Your task to perform on an android device: Clear the cart on newegg.com. Add asus zenbook to the cart on newegg.com, then select checkout. Image 0: 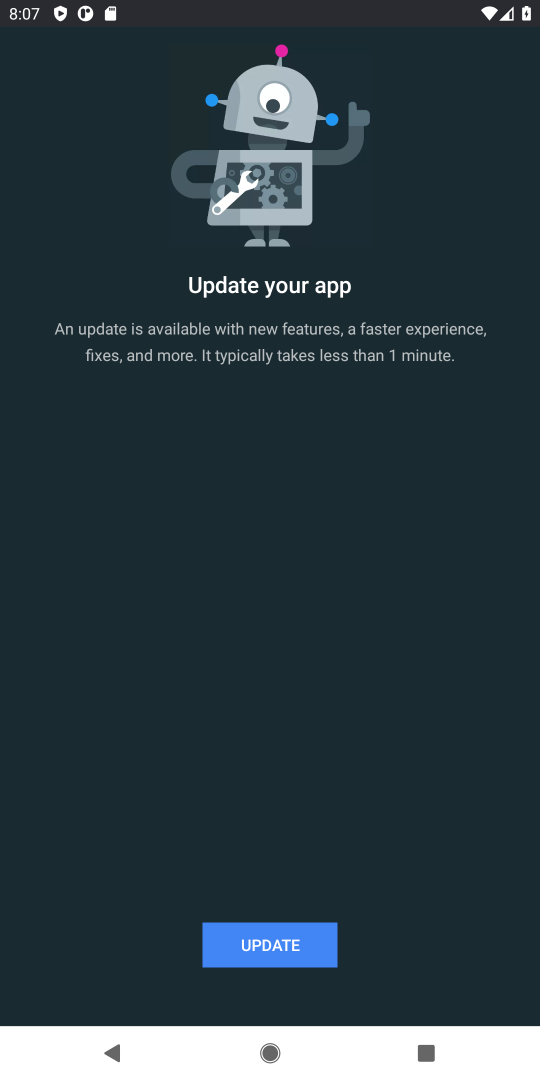
Step 0: press home button
Your task to perform on an android device: Clear the cart on newegg.com. Add asus zenbook to the cart on newegg.com, then select checkout. Image 1: 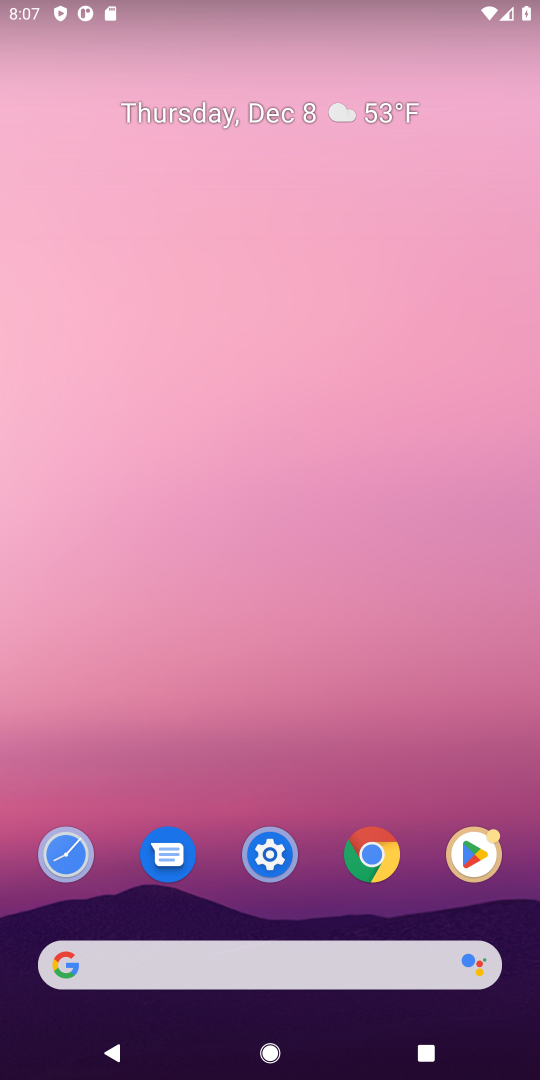
Step 1: click (96, 963)
Your task to perform on an android device: Clear the cart on newegg.com. Add asus zenbook to the cart on newegg.com, then select checkout. Image 2: 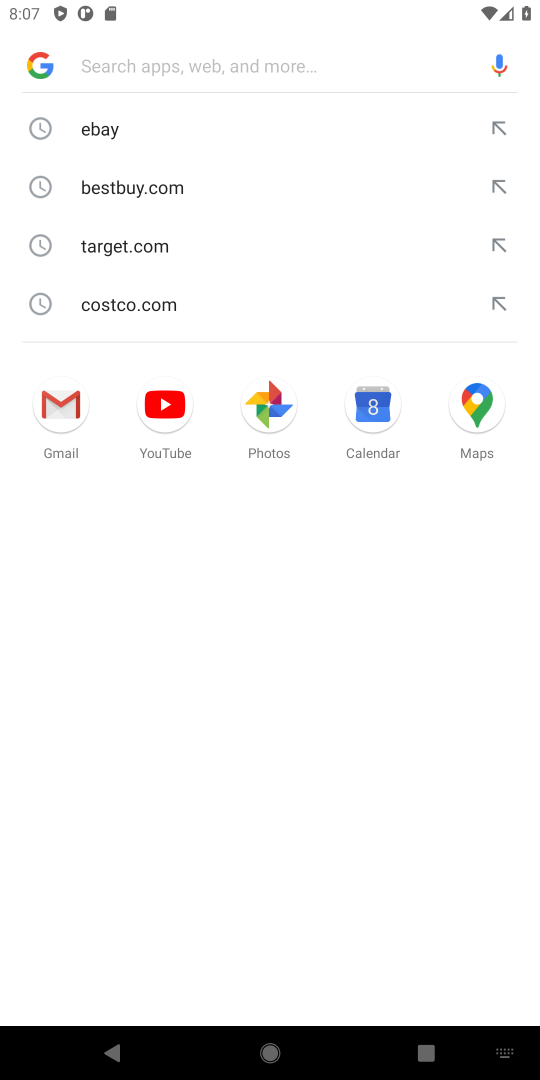
Step 2: type "newegg.com"
Your task to perform on an android device: Clear the cart on newegg.com. Add asus zenbook to the cart on newegg.com, then select checkout. Image 3: 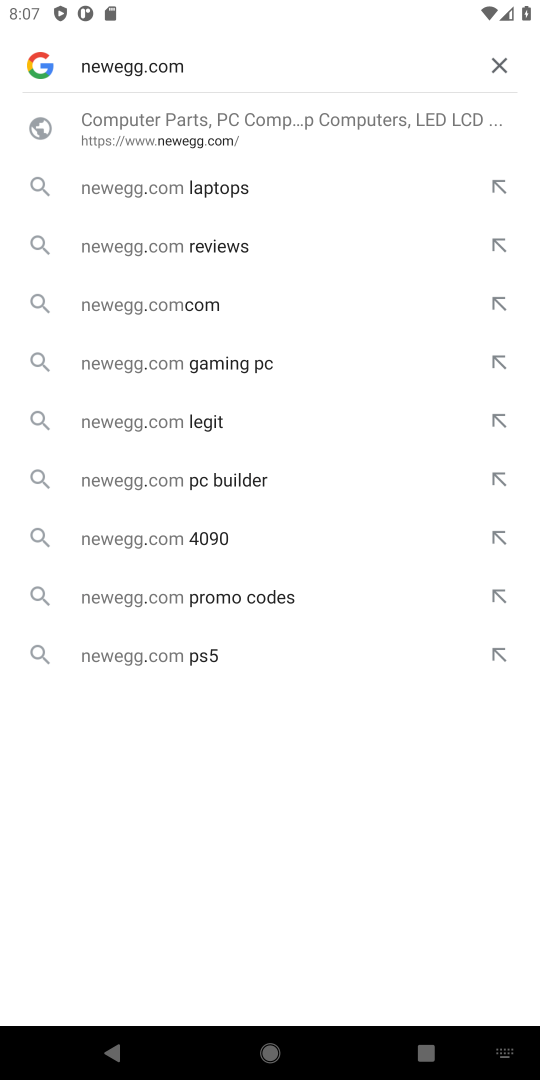
Step 3: press enter
Your task to perform on an android device: Clear the cart on newegg.com. Add asus zenbook to the cart on newegg.com, then select checkout. Image 4: 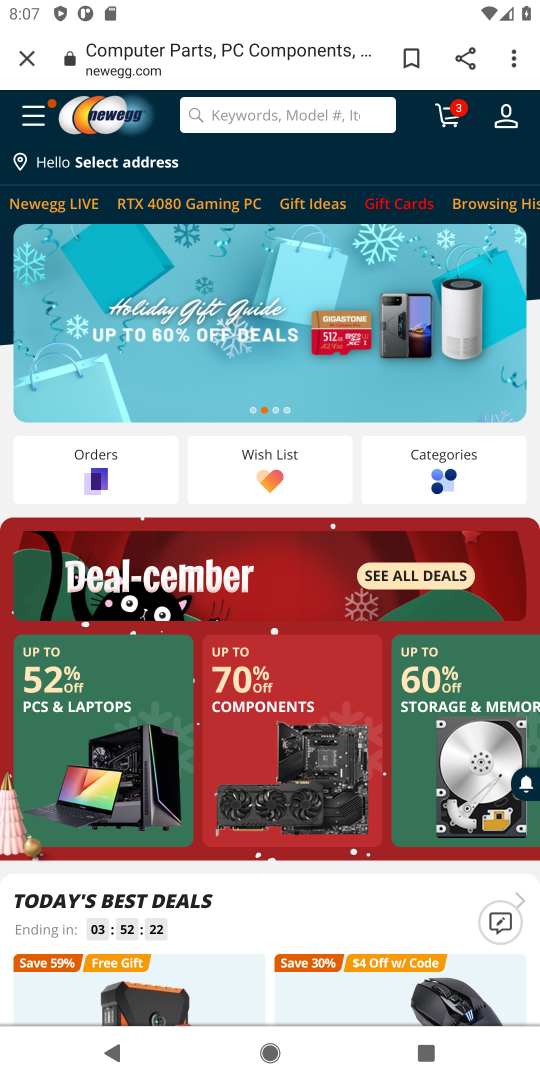
Step 4: click (451, 121)
Your task to perform on an android device: Clear the cart on newegg.com. Add asus zenbook to the cart on newegg.com, then select checkout. Image 5: 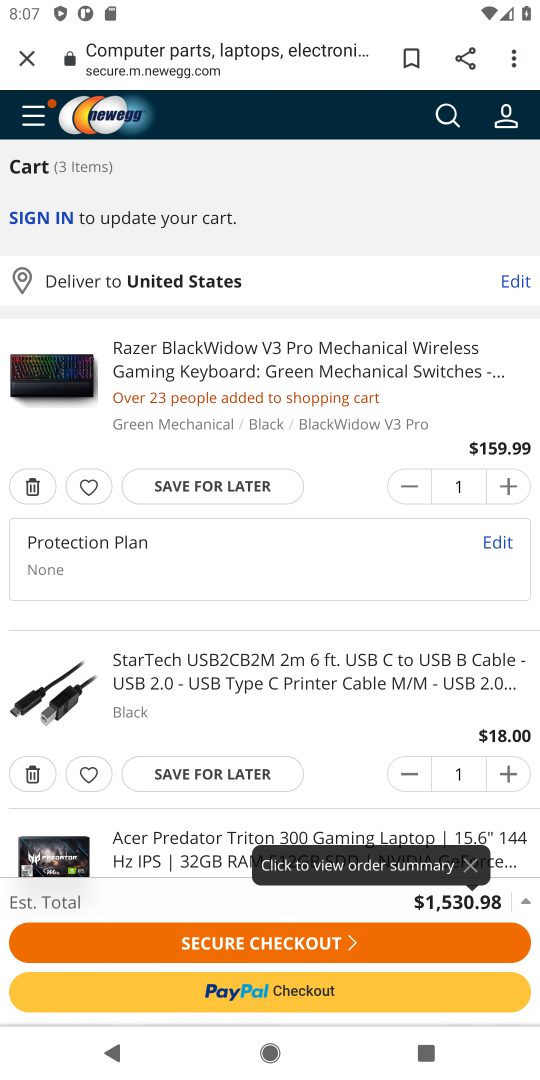
Step 5: click (22, 485)
Your task to perform on an android device: Clear the cart on newegg.com. Add asus zenbook to the cart on newegg.com, then select checkout. Image 6: 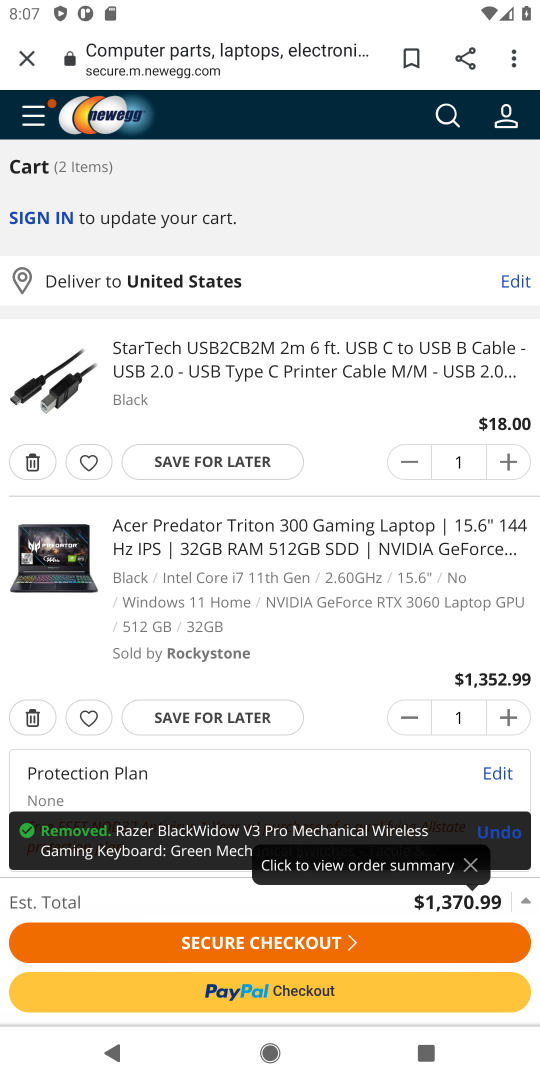
Step 6: click (28, 719)
Your task to perform on an android device: Clear the cart on newegg.com. Add asus zenbook to the cart on newegg.com, then select checkout. Image 7: 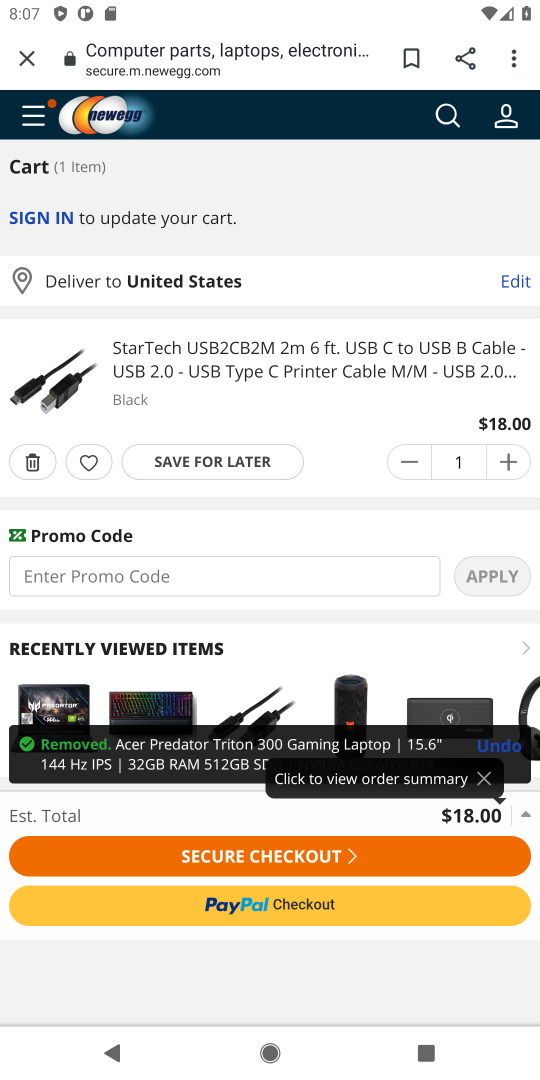
Step 7: click (36, 463)
Your task to perform on an android device: Clear the cart on newegg.com. Add asus zenbook to the cart on newegg.com, then select checkout. Image 8: 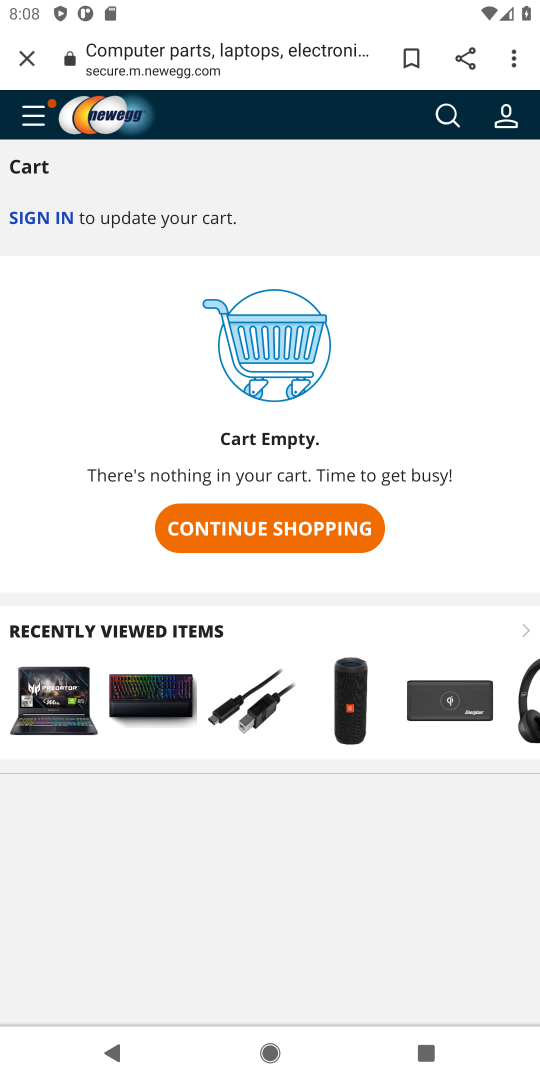
Step 8: click (447, 112)
Your task to perform on an android device: Clear the cart on newegg.com. Add asus zenbook to the cart on newegg.com, then select checkout. Image 9: 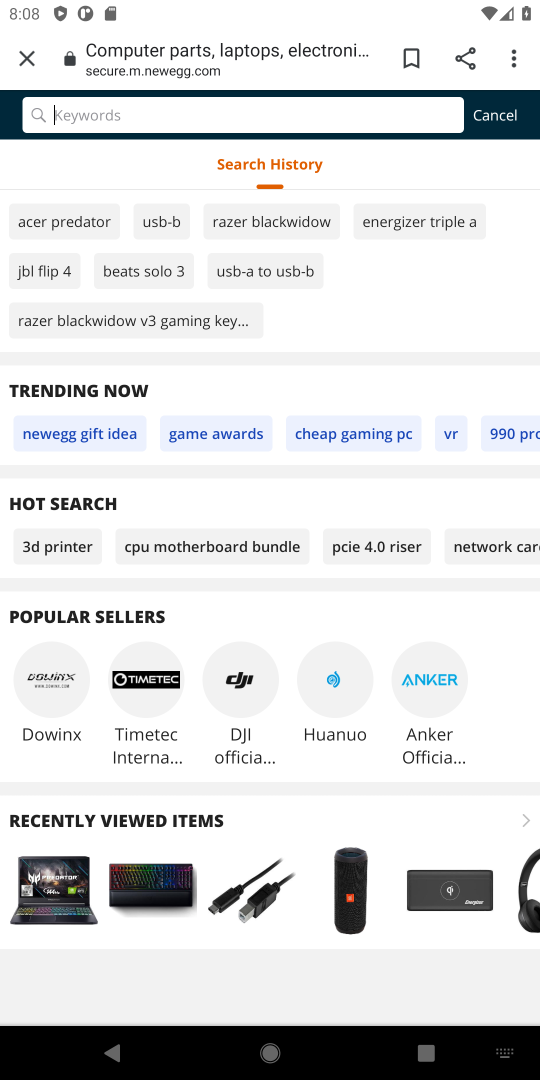
Step 9: type "asus zenbook"
Your task to perform on an android device: Clear the cart on newegg.com. Add asus zenbook to the cart on newegg.com, then select checkout. Image 10: 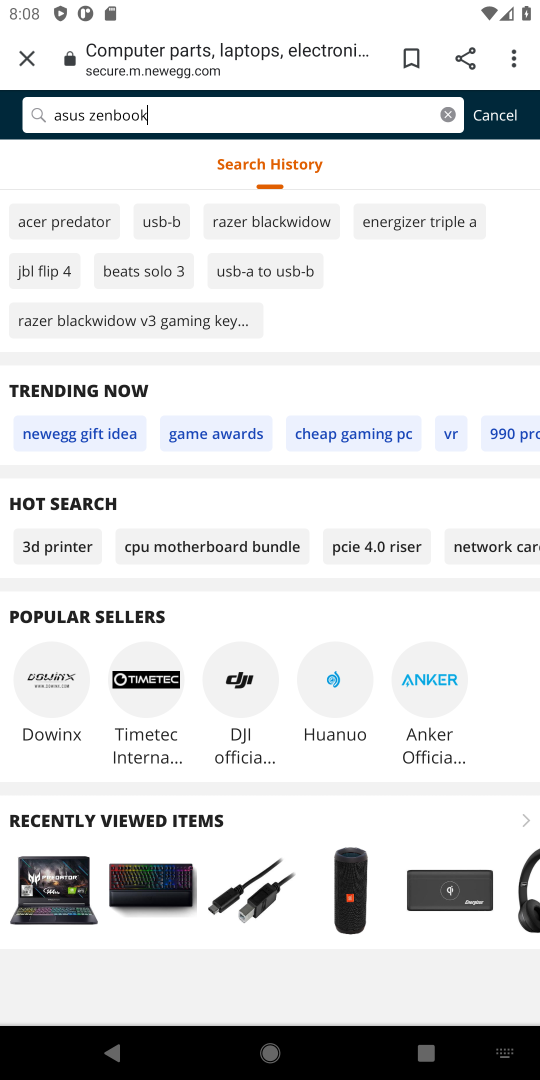
Step 10: press enter
Your task to perform on an android device: Clear the cart on newegg.com. Add asus zenbook to the cart on newegg.com, then select checkout. Image 11: 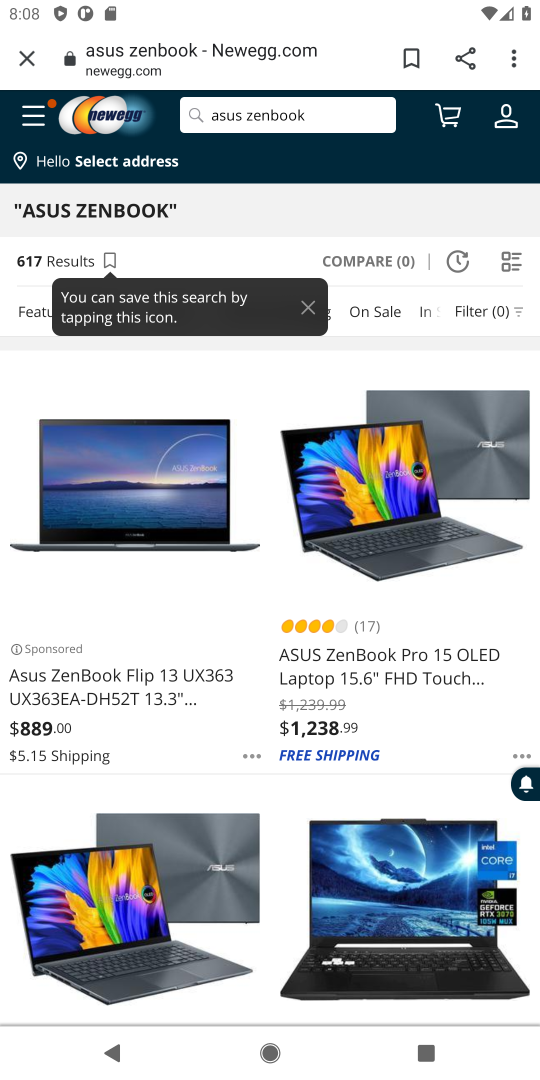
Step 11: click (104, 685)
Your task to perform on an android device: Clear the cart on newegg.com. Add asus zenbook to the cart on newegg.com, then select checkout. Image 12: 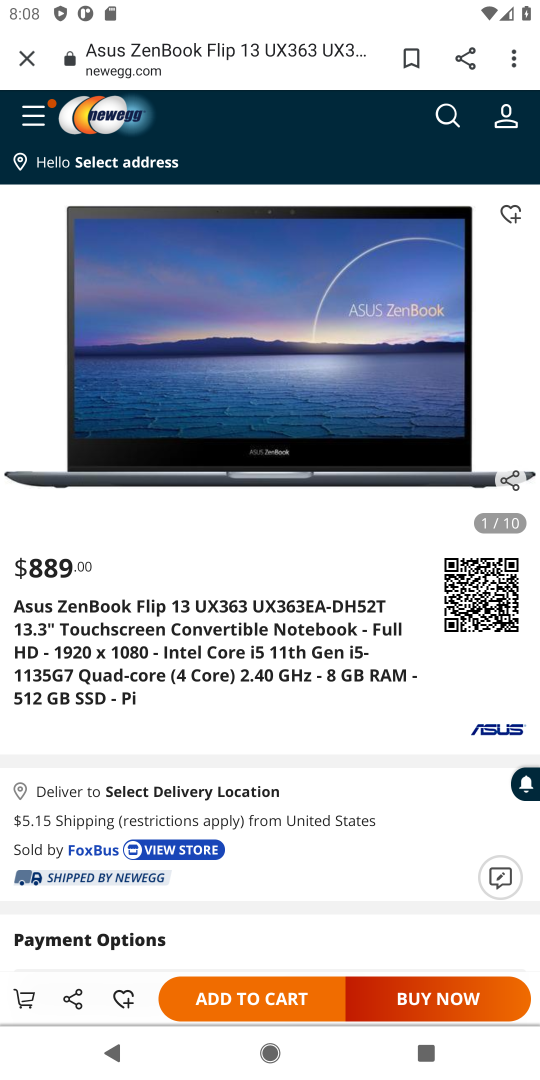
Step 12: click (197, 1002)
Your task to perform on an android device: Clear the cart on newegg.com. Add asus zenbook to the cart on newegg.com, then select checkout. Image 13: 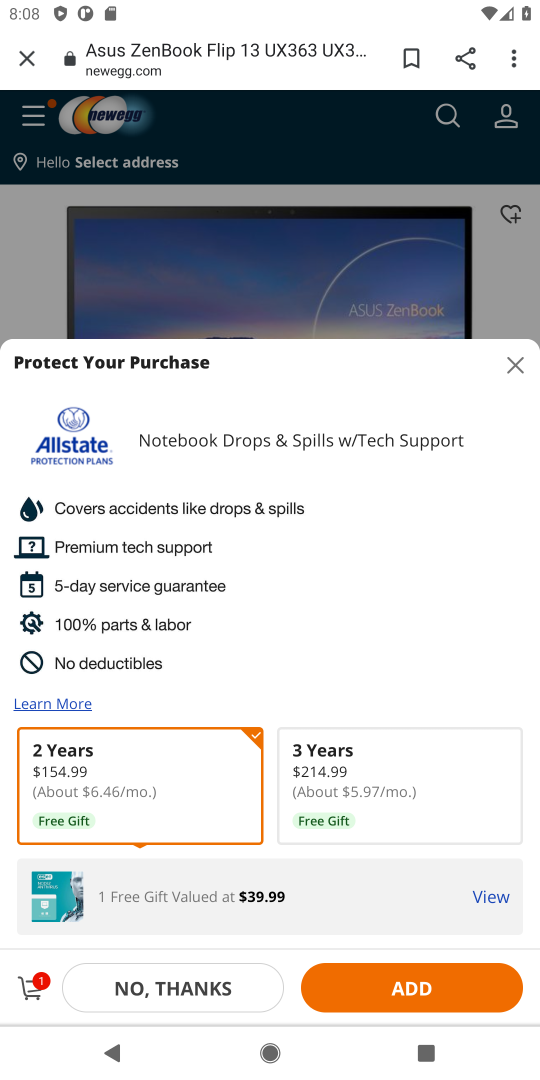
Step 13: click (174, 986)
Your task to perform on an android device: Clear the cart on newegg.com. Add asus zenbook to the cart on newegg.com, then select checkout. Image 14: 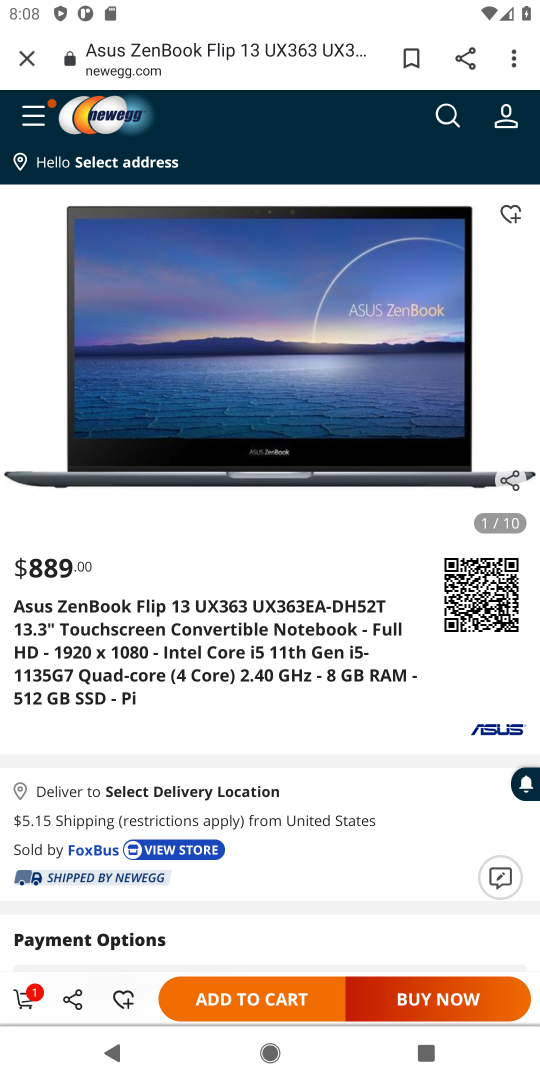
Step 14: click (18, 993)
Your task to perform on an android device: Clear the cart on newegg.com. Add asus zenbook to the cart on newegg.com, then select checkout. Image 15: 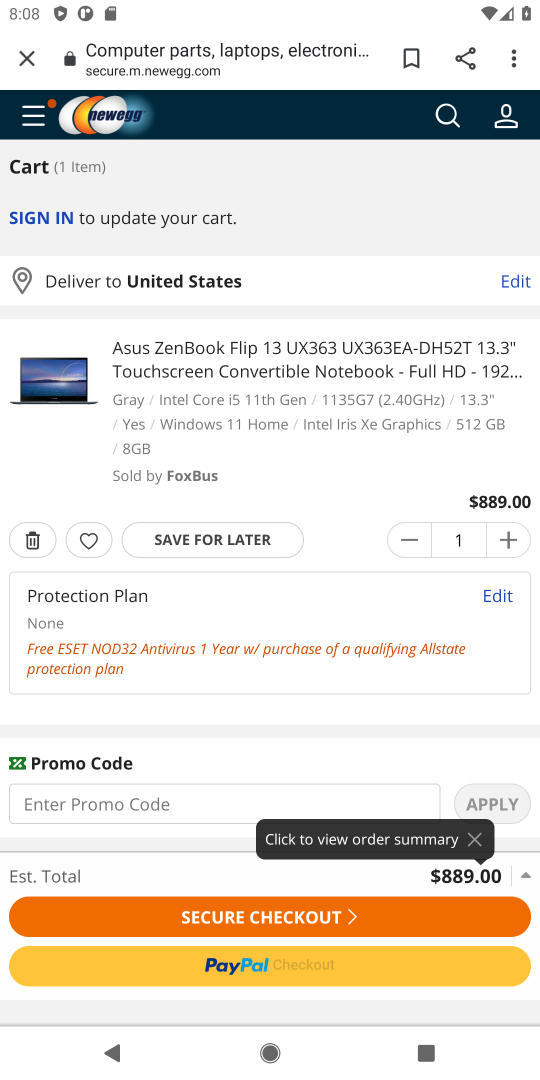
Step 15: click (276, 912)
Your task to perform on an android device: Clear the cart on newegg.com. Add asus zenbook to the cart on newegg.com, then select checkout. Image 16: 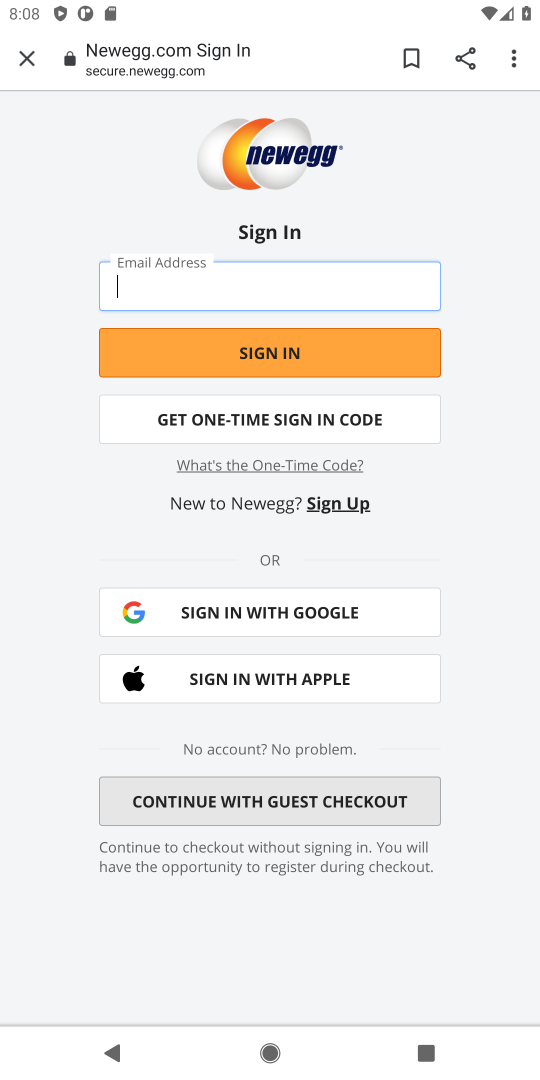
Step 16: task complete